Your task to perform on an android device: refresh tabs in the chrome app Image 0: 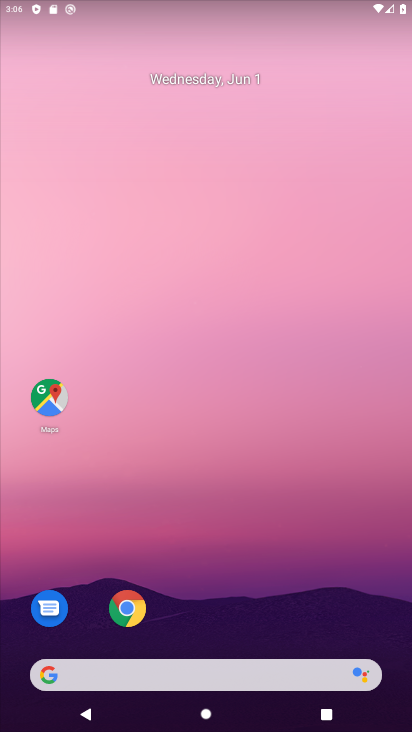
Step 0: click (132, 616)
Your task to perform on an android device: refresh tabs in the chrome app Image 1: 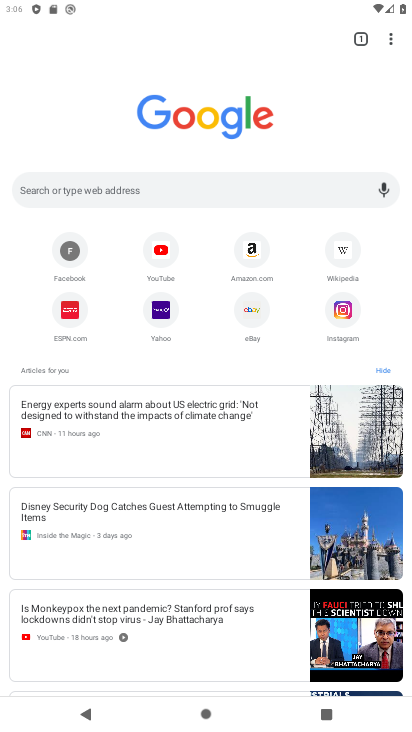
Step 1: click (393, 46)
Your task to perform on an android device: refresh tabs in the chrome app Image 2: 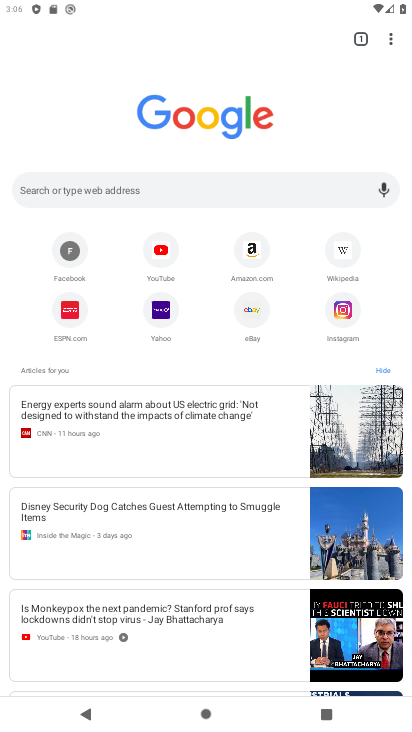
Step 2: task complete